Your task to perform on an android device: Go to Android settings Image 0: 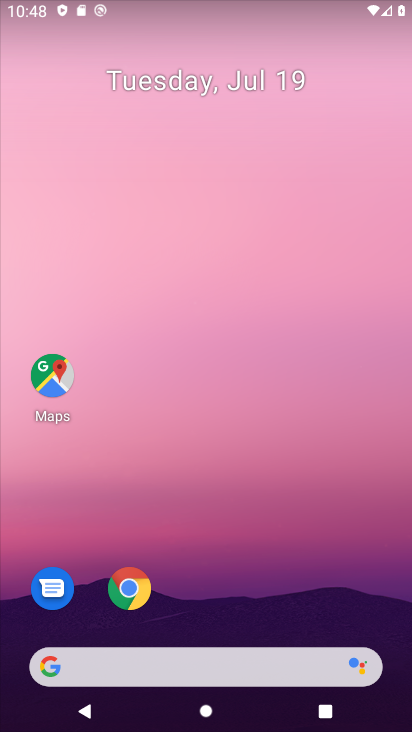
Step 0: drag from (370, 574) to (253, 57)
Your task to perform on an android device: Go to Android settings Image 1: 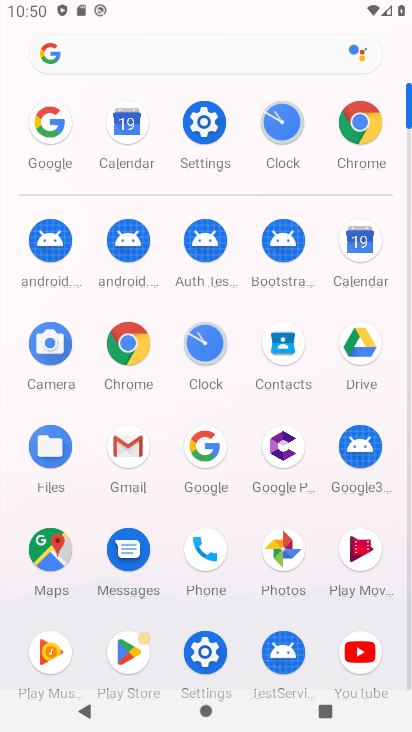
Step 1: click (202, 634)
Your task to perform on an android device: Go to Android settings Image 2: 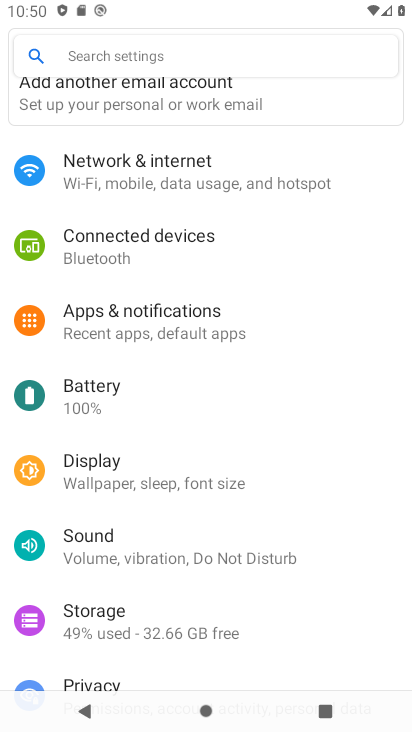
Step 2: task complete